Your task to perform on an android device: see tabs open on other devices in the chrome app Image 0: 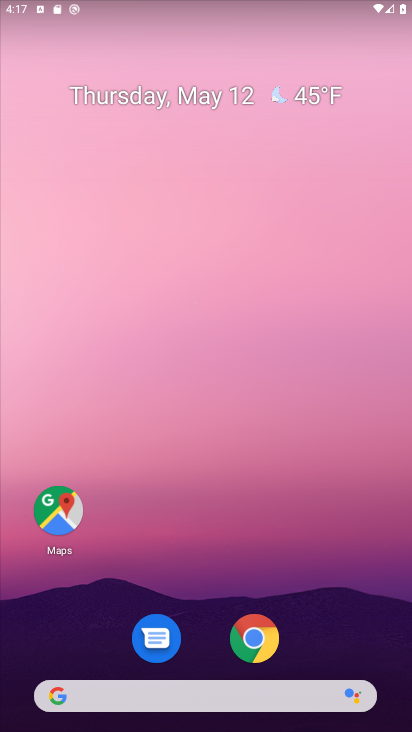
Step 0: click (260, 638)
Your task to perform on an android device: see tabs open on other devices in the chrome app Image 1: 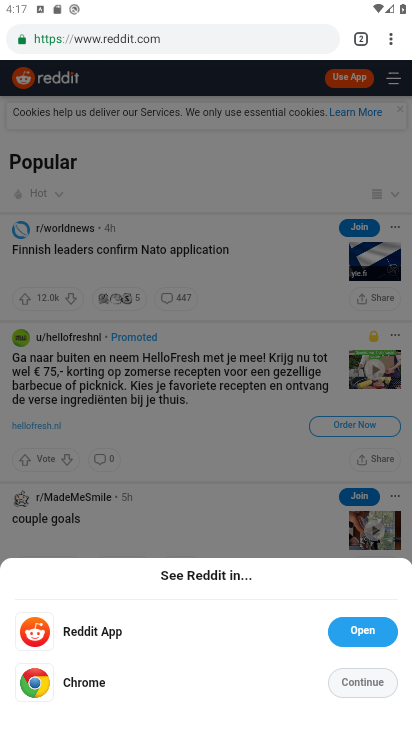
Step 1: click (392, 46)
Your task to perform on an android device: see tabs open on other devices in the chrome app Image 2: 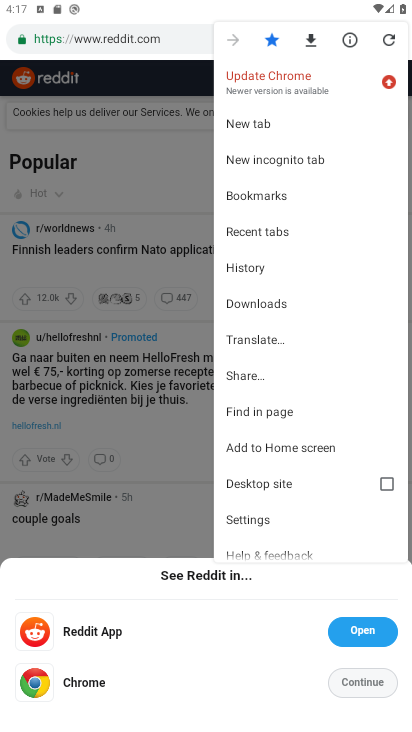
Step 2: click (258, 233)
Your task to perform on an android device: see tabs open on other devices in the chrome app Image 3: 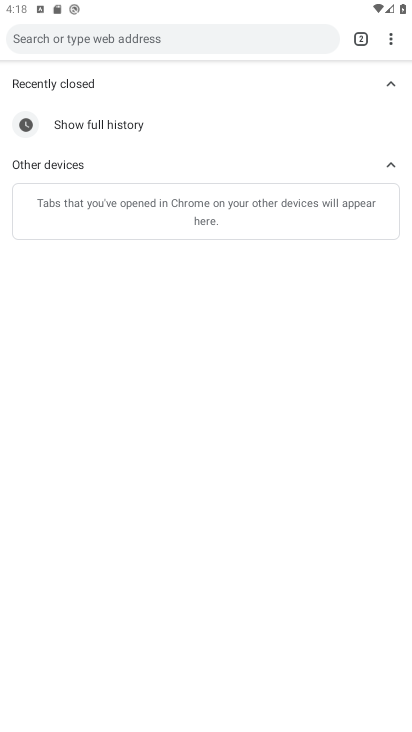
Step 3: task complete